Your task to perform on an android device: Open maps Image 0: 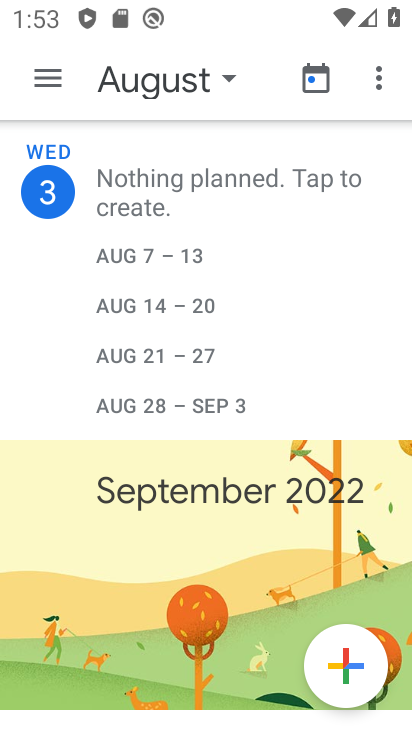
Step 0: press home button
Your task to perform on an android device: Open maps Image 1: 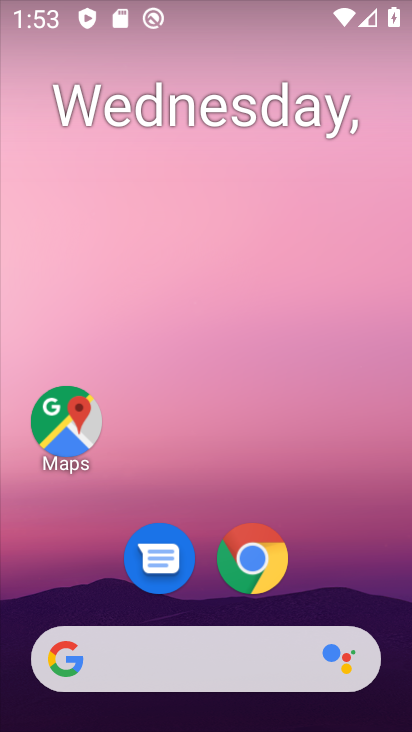
Step 1: click (70, 426)
Your task to perform on an android device: Open maps Image 2: 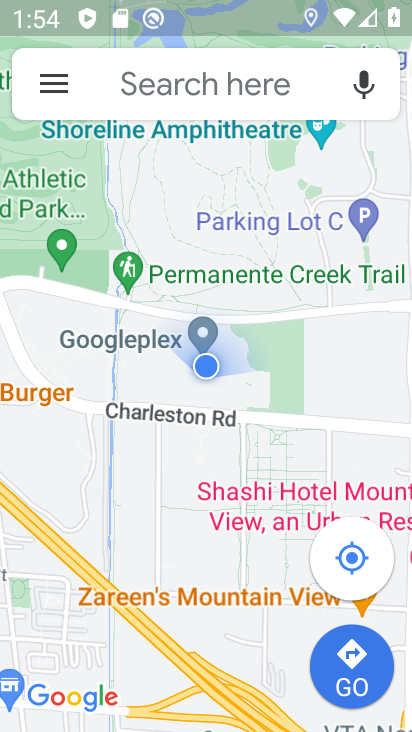
Step 2: task complete